Your task to perform on an android device: Go to Reddit.com Image 0: 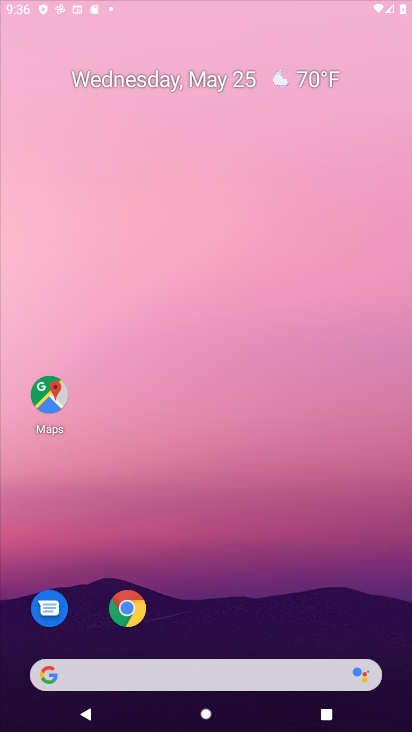
Step 0: drag from (268, 390) to (206, 20)
Your task to perform on an android device: Go to Reddit.com Image 1: 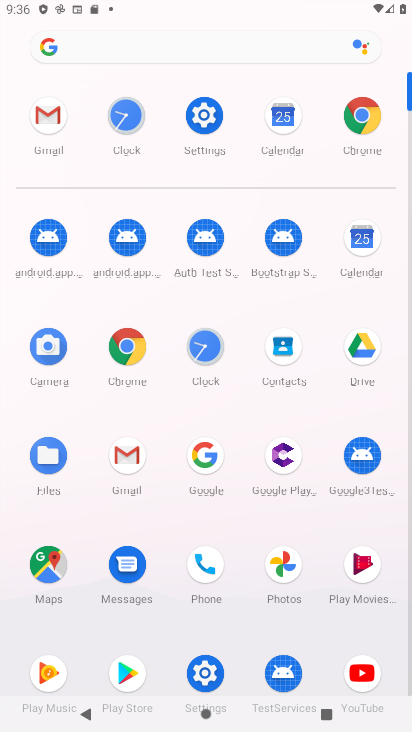
Step 1: click (132, 347)
Your task to perform on an android device: Go to Reddit.com Image 2: 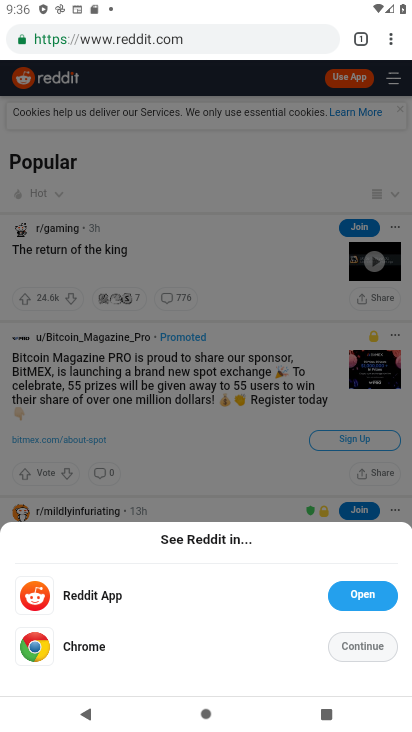
Step 2: click (201, 202)
Your task to perform on an android device: Go to Reddit.com Image 3: 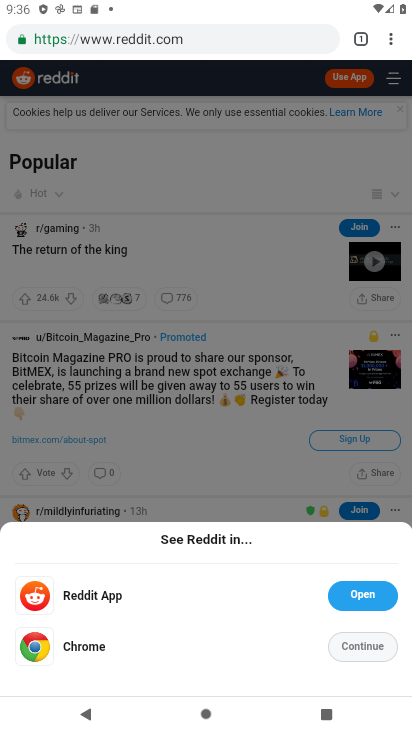
Step 3: task complete